Your task to perform on an android device: Open calendar and show me the third week of next month Image 0: 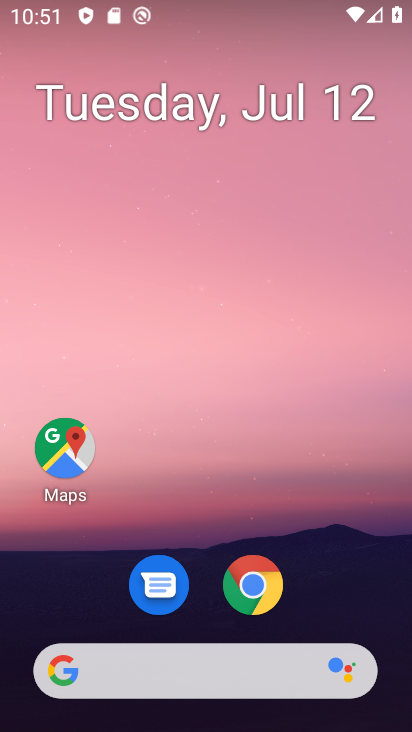
Step 0: drag from (322, 525) to (322, 34)
Your task to perform on an android device: Open calendar and show me the third week of next month Image 1: 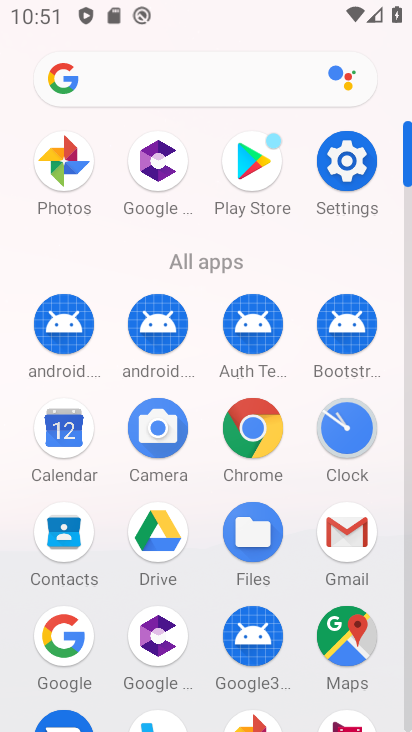
Step 1: click (83, 434)
Your task to perform on an android device: Open calendar and show me the third week of next month Image 2: 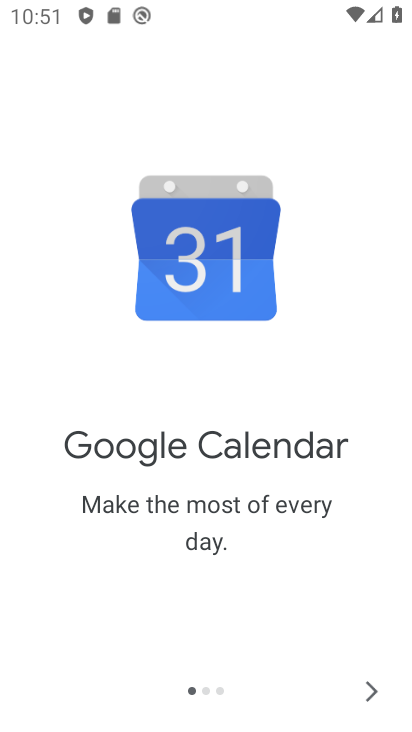
Step 2: click (365, 691)
Your task to perform on an android device: Open calendar and show me the third week of next month Image 3: 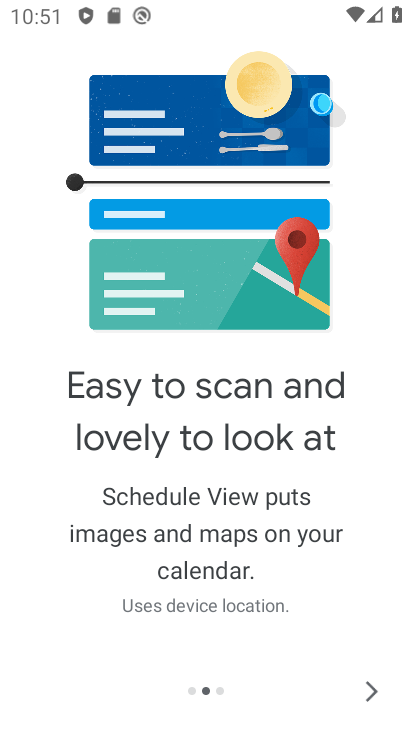
Step 3: click (367, 690)
Your task to perform on an android device: Open calendar and show me the third week of next month Image 4: 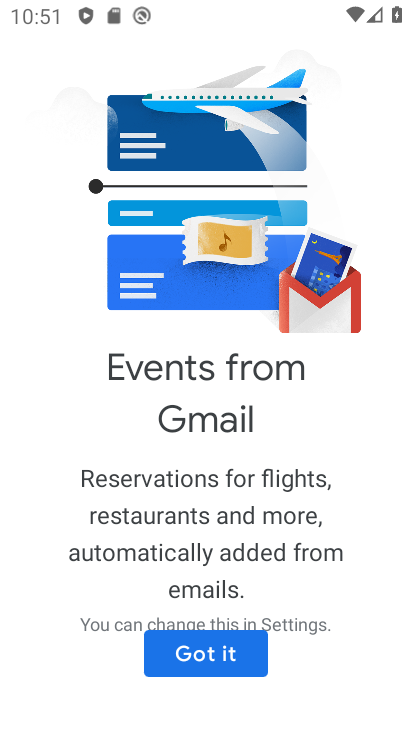
Step 4: click (257, 661)
Your task to perform on an android device: Open calendar and show me the third week of next month Image 5: 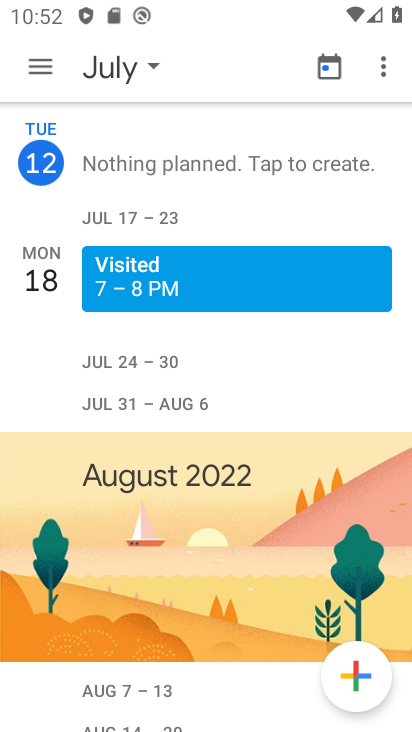
Step 5: click (45, 70)
Your task to perform on an android device: Open calendar and show me the third week of next month Image 6: 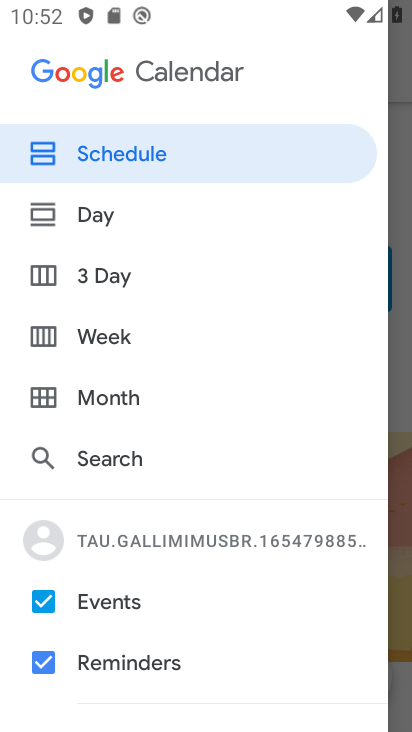
Step 6: click (47, 390)
Your task to perform on an android device: Open calendar and show me the third week of next month Image 7: 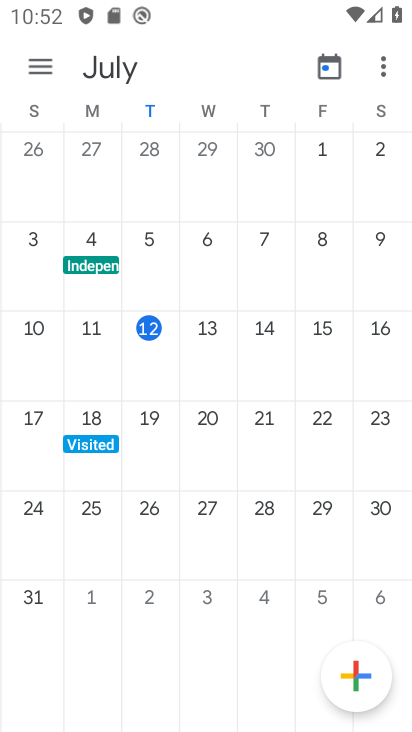
Step 7: drag from (374, 364) to (2, 370)
Your task to perform on an android device: Open calendar and show me the third week of next month Image 8: 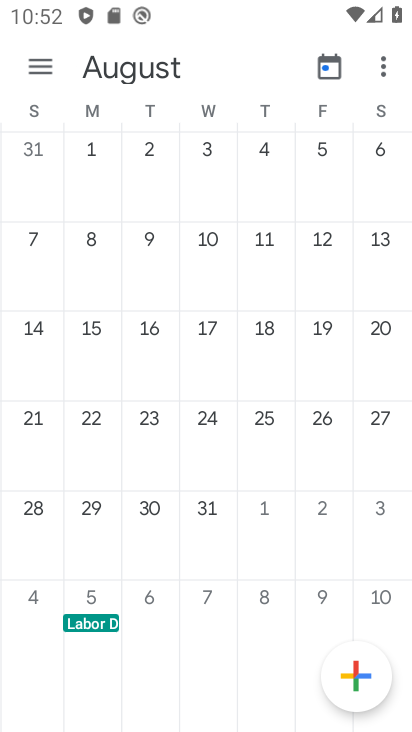
Step 8: click (37, 422)
Your task to perform on an android device: Open calendar and show me the third week of next month Image 9: 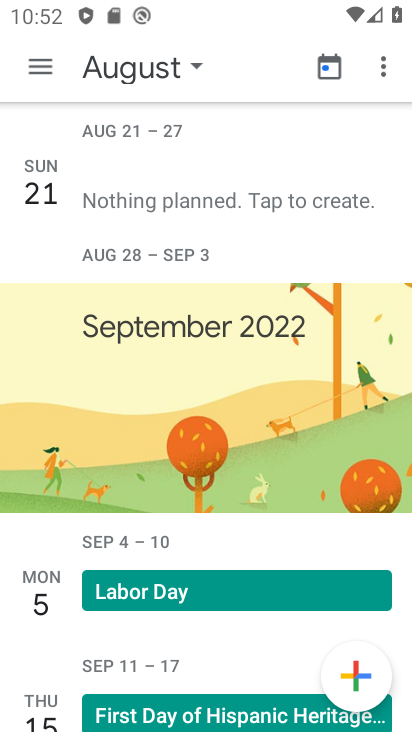
Step 9: task complete